Your task to perform on an android device: Go to notification settings Image 0: 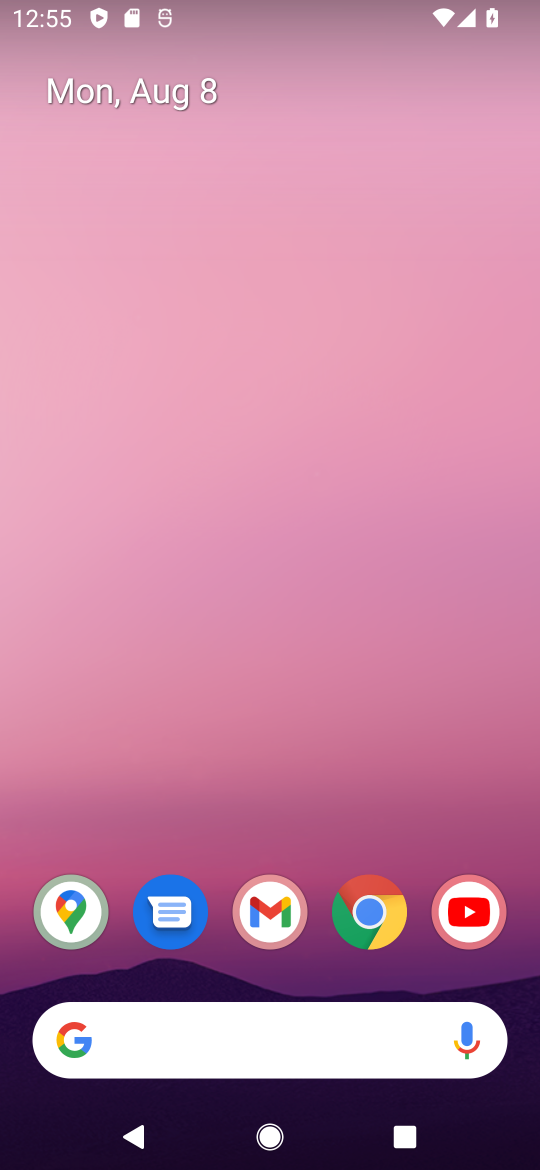
Step 0: drag from (250, 1004) to (418, 22)
Your task to perform on an android device: Go to notification settings Image 1: 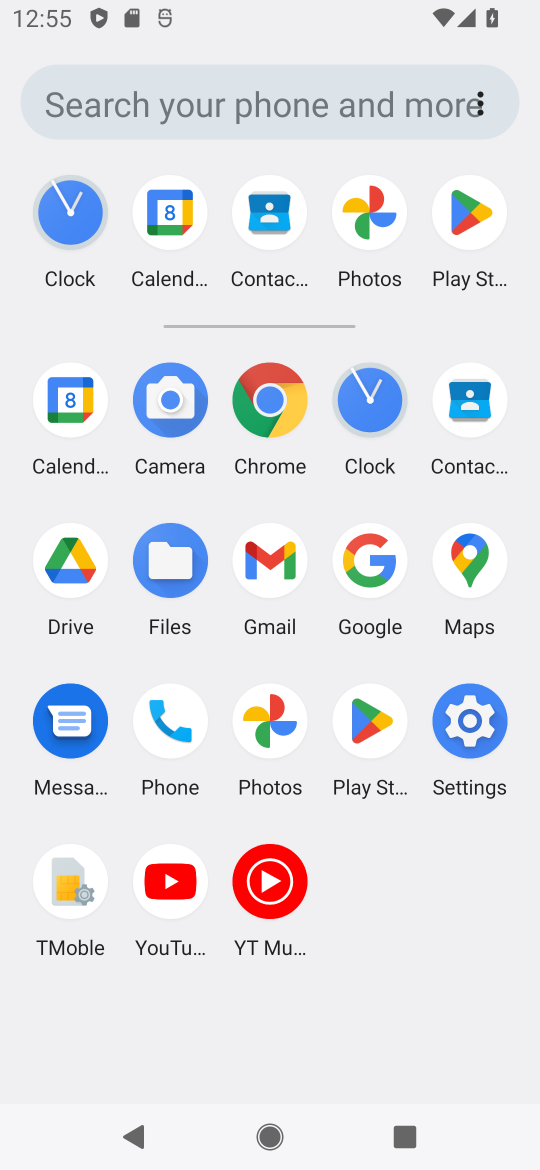
Step 1: click (478, 721)
Your task to perform on an android device: Go to notification settings Image 2: 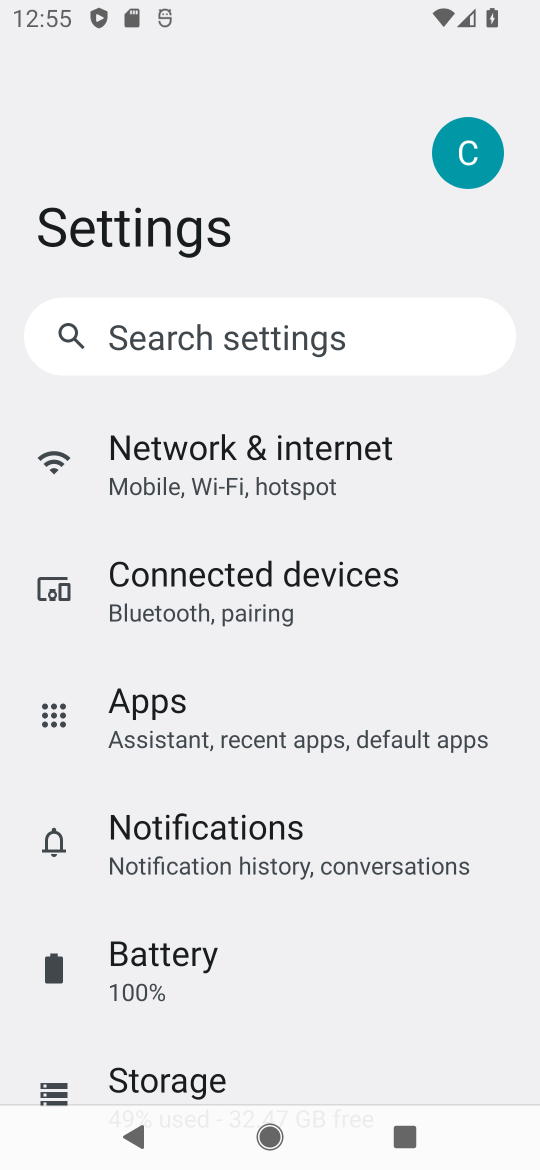
Step 2: click (284, 860)
Your task to perform on an android device: Go to notification settings Image 3: 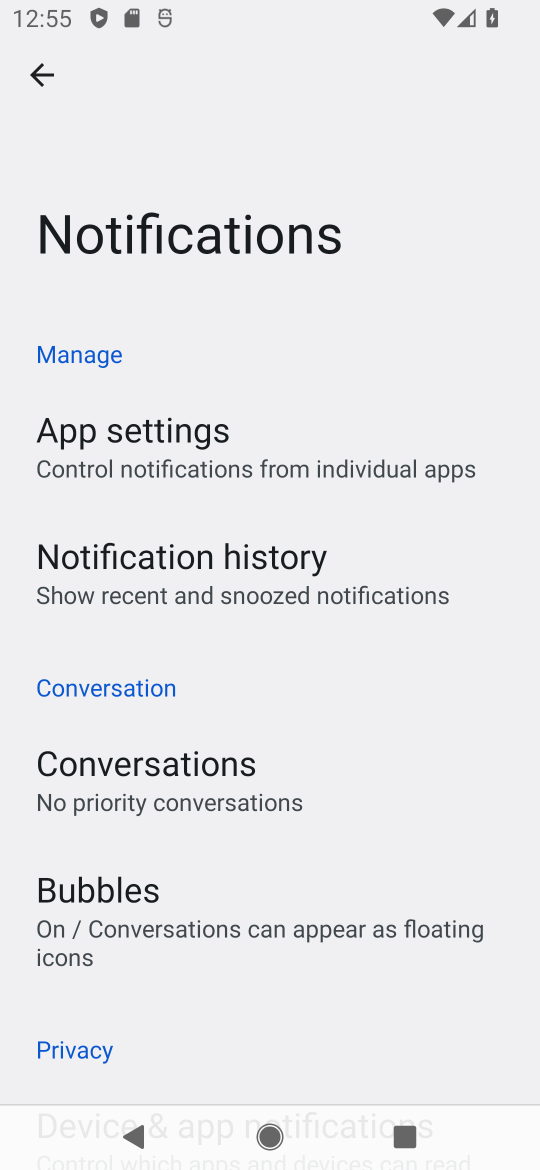
Step 3: task complete